Your task to perform on an android device: Add usb-c to usb-a to the cart on bestbuy.com, then select checkout. Image 0: 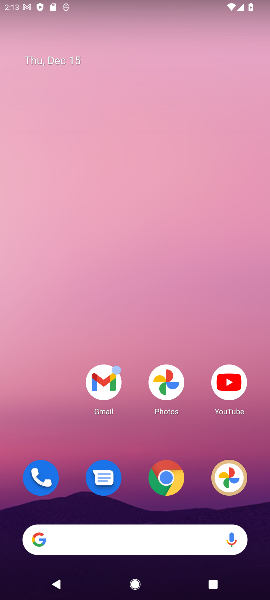
Step 0: click (173, 478)
Your task to perform on an android device: Add usb-c to usb-a to the cart on bestbuy.com, then select checkout. Image 1: 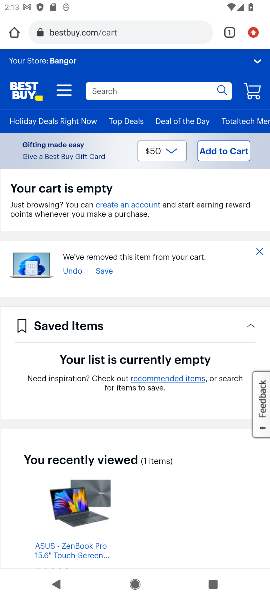
Step 1: click (116, 97)
Your task to perform on an android device: Add usb-c to usb-a to the cart on bestbuy.com, then select checkout. Image 2: 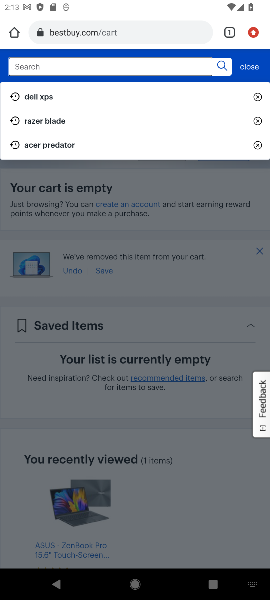
Step 2: type "usb-c to usb-a"
Your task to perform on an android device: Add usb-c to usb-a to the cart on bestbuy.com, then select checkout. Image 3: 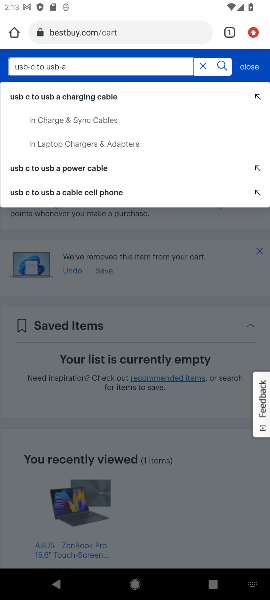
Step 3: click (217, 68)
Your task to perform on an android device: Add usb-c to usb-a to the cart on bestbuy.com, then select checkout. Image 4: 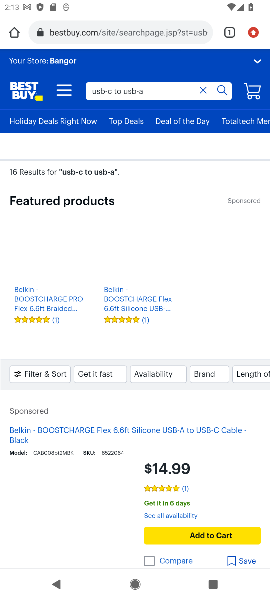
Step 4: drag from (96, 420) to (103, 221)
Your task to perform on an android device: Add usb-c to usb-a to the cart on bestbuy.com, then select checkout. Image 5: 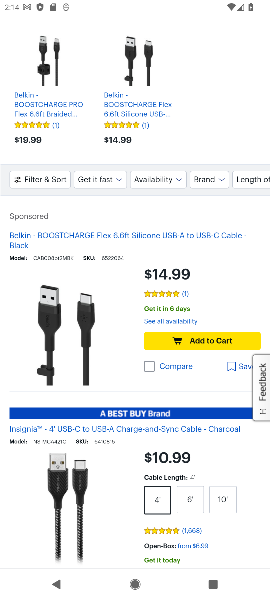
Step 5: drag from (95, 330) to (94, 165)
Your task to perform on an android device: Add usb-c to usb-a to the cart on bestbuy.com, then select checkout. Image 6: 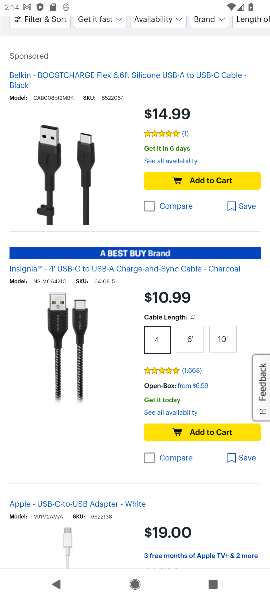
Step 6: click (166, 424)
Your task to perform on an android device: Add usb-c to usb-a to the cart on bestbuy.com, then select checkout. Image 7: 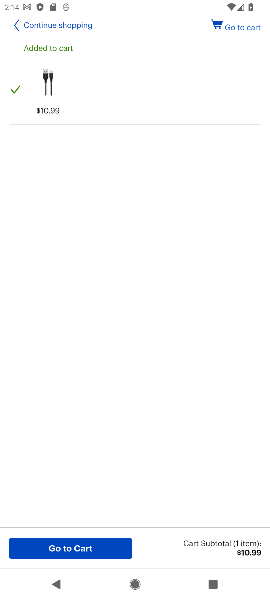
Step 7: click (236, 30)
Your task to perform on an android device: Add usb-c to usb-a to the cart on bestbuy.com, then select checkout. Image 8: 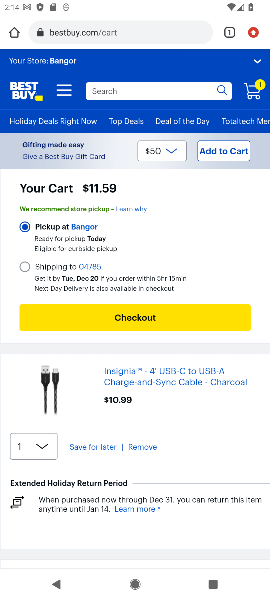
Step 8: click (162, 313)
Your task to perform on an android device: Add usb-c to usb-a to the cart on bestbuy.com, then select checkout. Image 9: 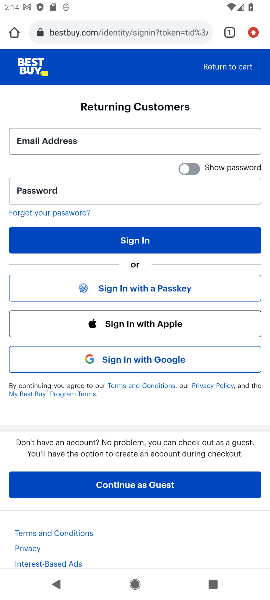
Step 9: task complete